Your task to perform on an android device: Open accessibility settings Image 0: 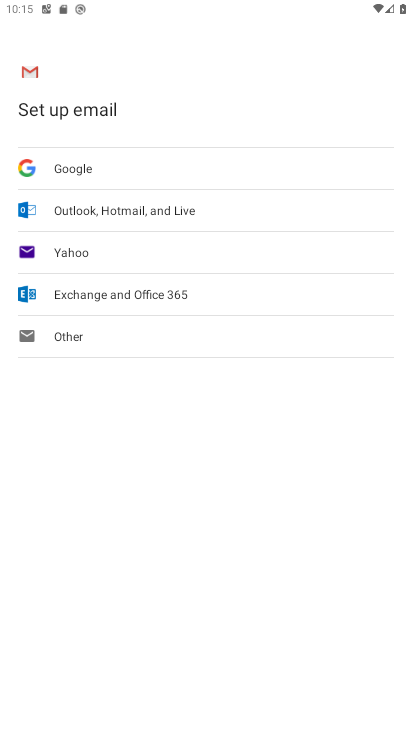
Step 0: press back button
Your task to perform on an android device: Open accessibility settings Image 1: 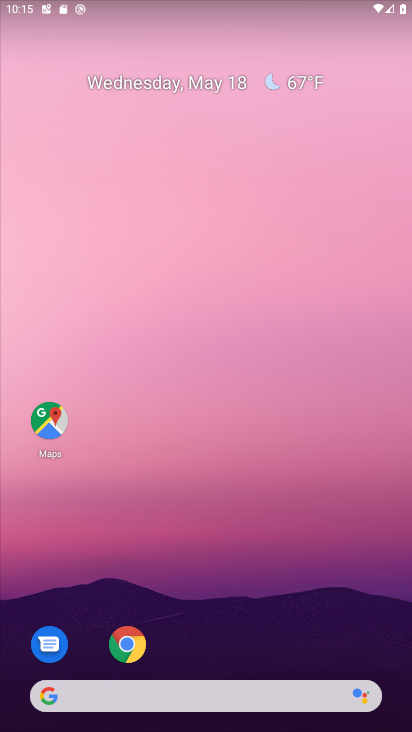
Step 1: drag from (240, 624) to (196, 124)
Your task to perform on an android device: Open accessibility settings Image 2: 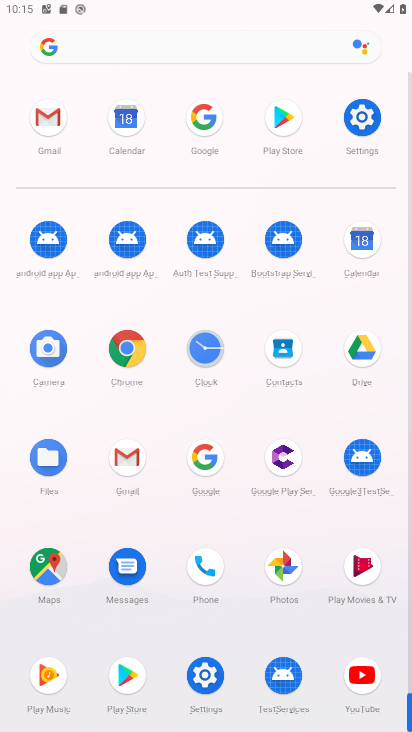
Step 2: click (361, 117)
Your task to perform on an android device: Open accessibility settings Image 3: 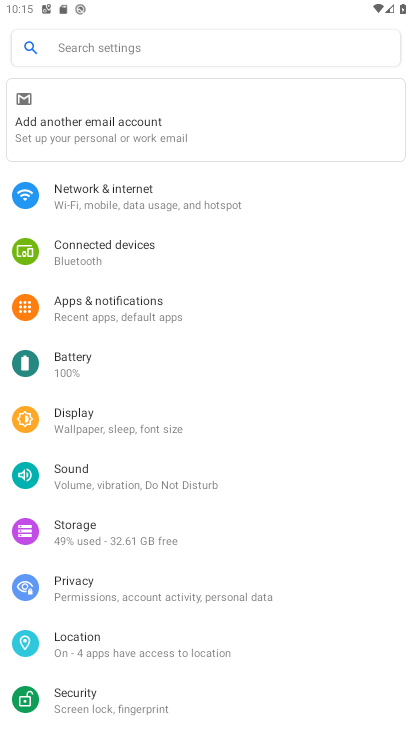
Step 3: drag from (122, 566) to (104, 456)
Your task to perform on an android device: Open accessibility settings Image 4: 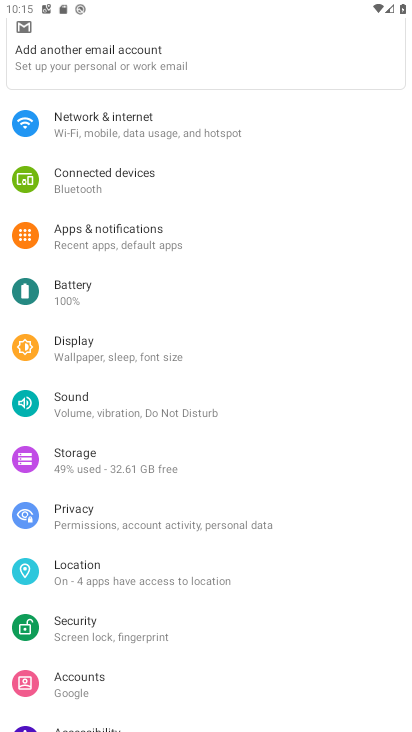
Step 4: drag from (106, 542) to (99, 445)
Your task to perform on an android device: Open accessibility settings Image 5: 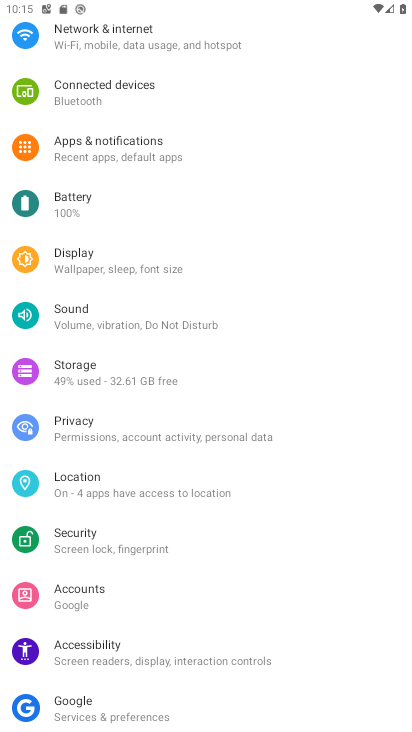
Step 5: click (94, 650)
Your task to perform on an android device: Open accessibility settings Image 6: 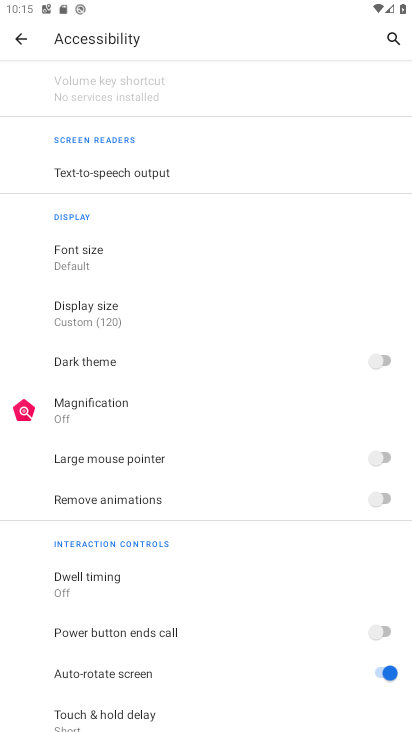
Step 6: task complete